Your task to perform on an android device: Open the web browser Image 0: 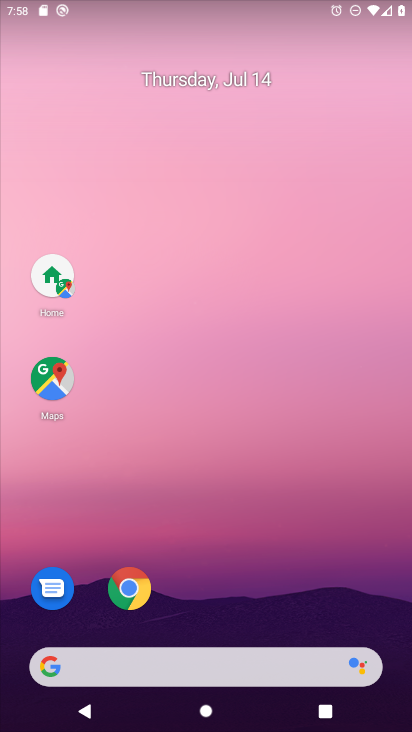
Step 0: drag from (206, 19) to (244, 19)
Your task to perform on an android device: Open the web browser Image 1: 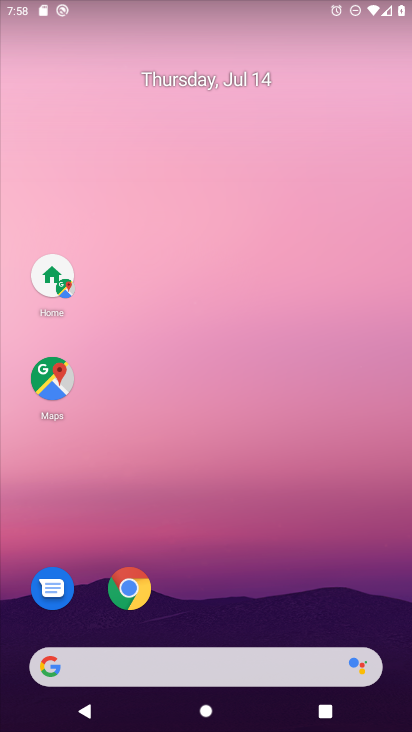
Step 1: task complete